Your task to perform on an android device: Go to settings Image 0: 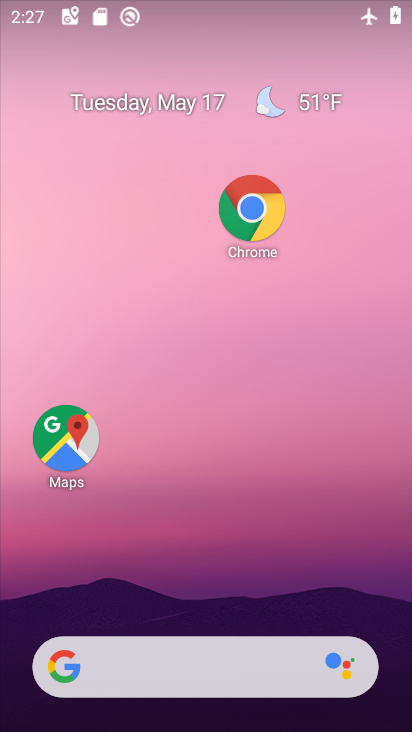
Step 0: drag from (189, 616) to (262, 49)
Your task to perform on an android device: Go to settings Image 1: 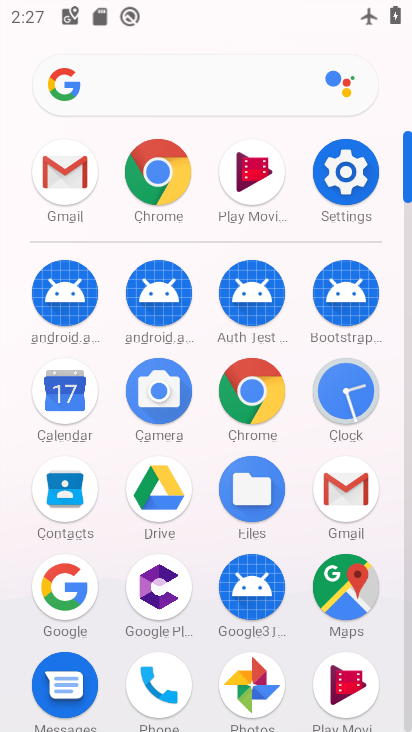
Step 1: click (339, 156)
Your task to perform on an android device: Go to settings Image 2: 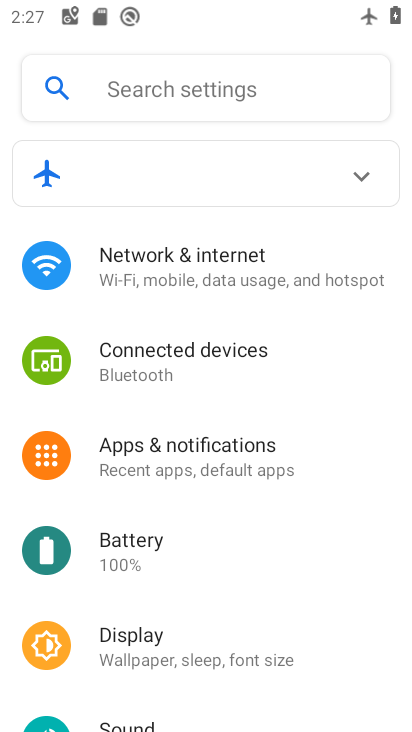
Step 2: task complete